Your task to perform on an android device: snooze an email in the gmail app Image 0: 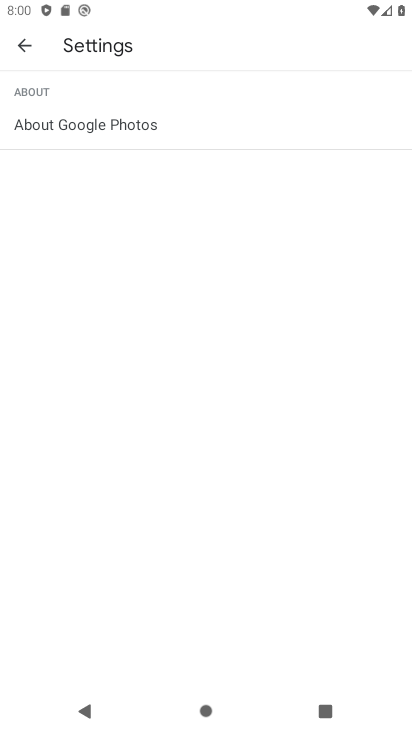
Step 0: press home button
Your task to perform on an android device: snooze an email in the gmail app Image 1: 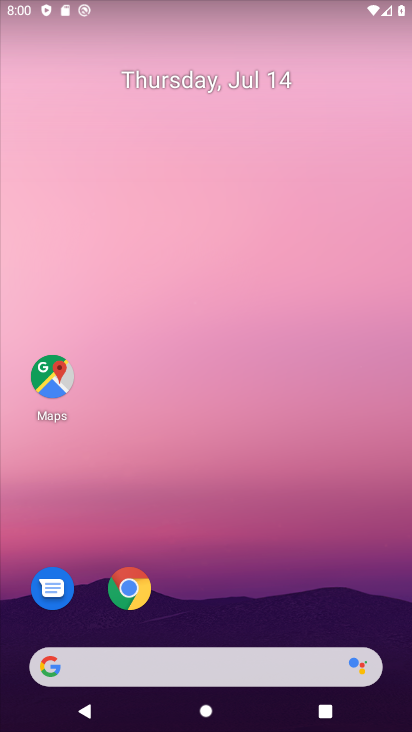
Step 1: drag from (203, 615) to (171, 3)
Your task to perform on an android device: snooze an email in the gmail app Image 2: 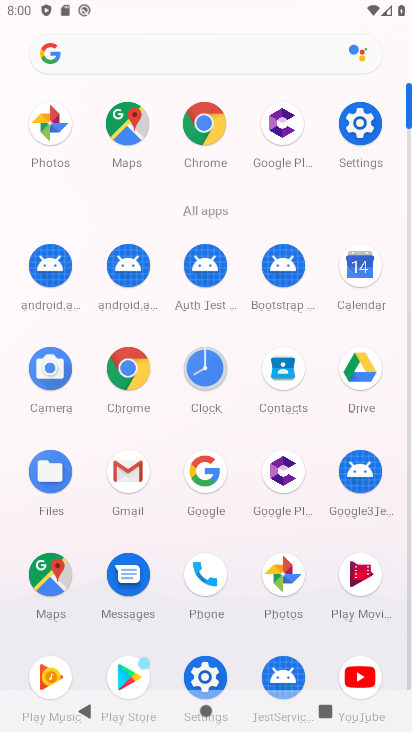
Step 2: click (125, 476)
Your task to perform on an android device: snooze an email in the gmail app Image 3: 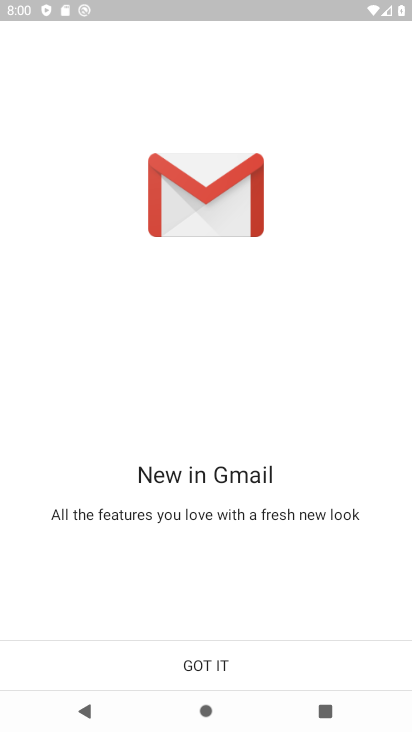
Step 3: click (184, 660)
Your task to perform on an android device: snooze an email in the gmail app Image 4: 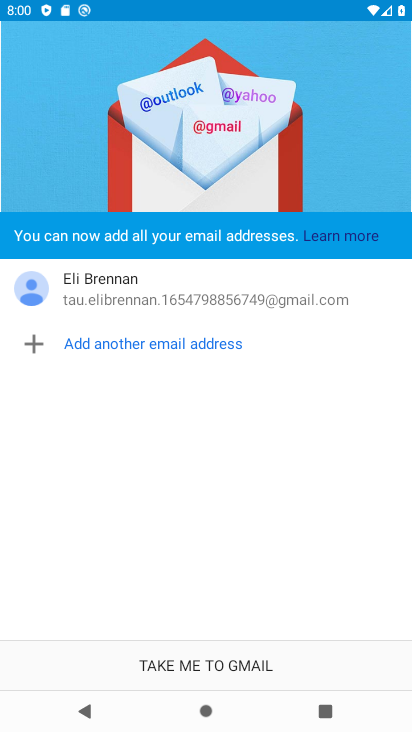
Step 4: click (184, 660)
Your task to perform on an android device: snooze an email in the gmail app Image 5: 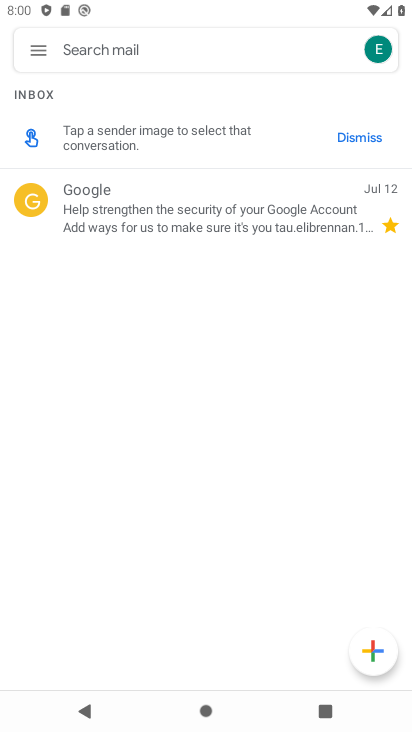
Step 5: click (29, 205)
Your task to perform on an android device: snooze an email in the gmail app Image 6: 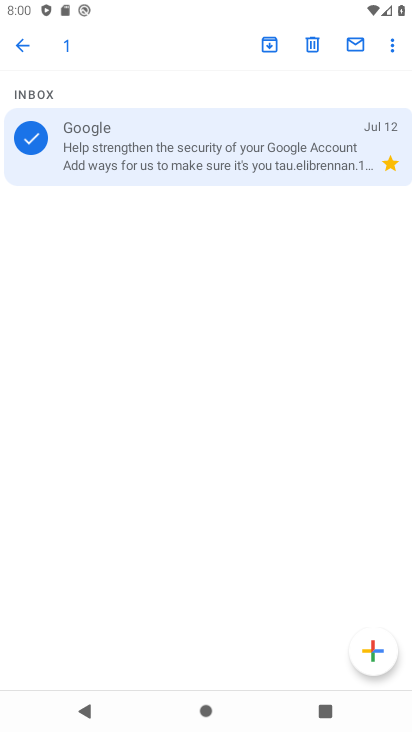
Step 6: click (389, 46)
Your task to perform on an android device: snooze an email in the gmail app Image 7: 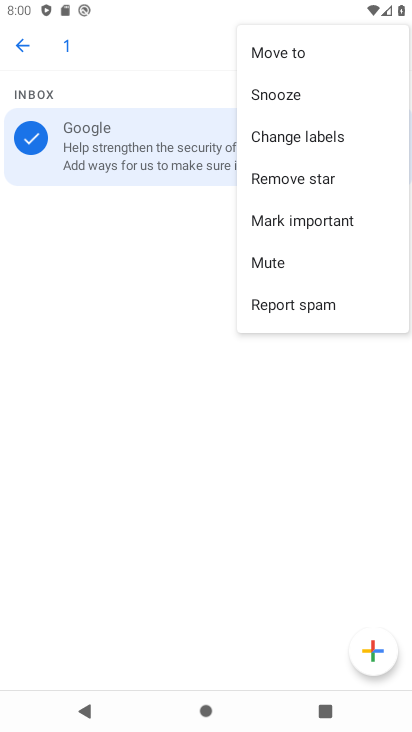
Step 7: click (281, 94)
Your task to perform on an android device: snooze an email in the gmail app Image 8: 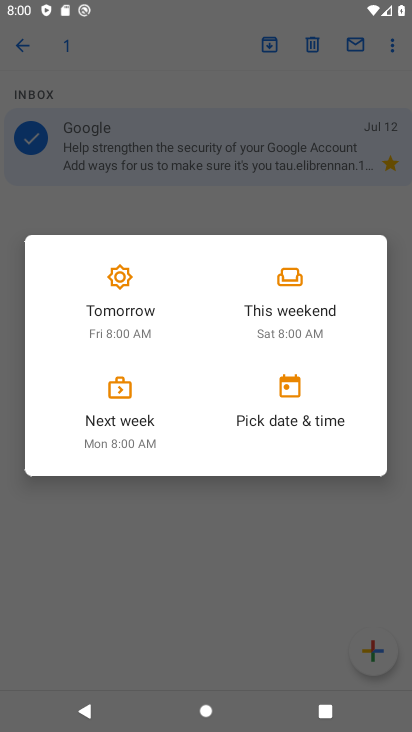
Step 8: click (122, 289)
Your task to perform on an android device: snooze an email in the gmail app Image 9: 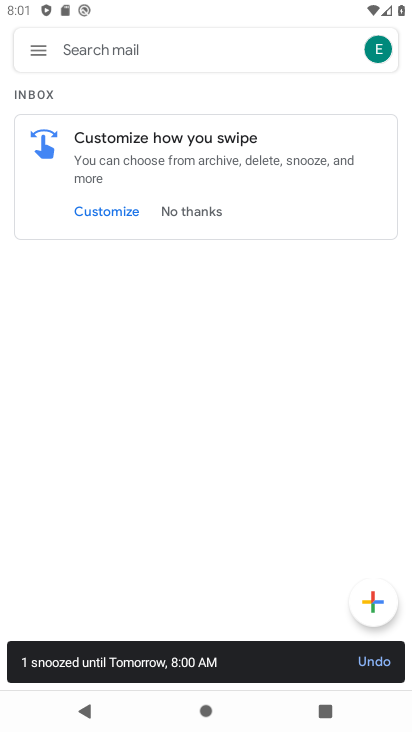
Step 9: task complete